Your task to perform on an android device: delete the emails in spam in the gmail app Image 0: 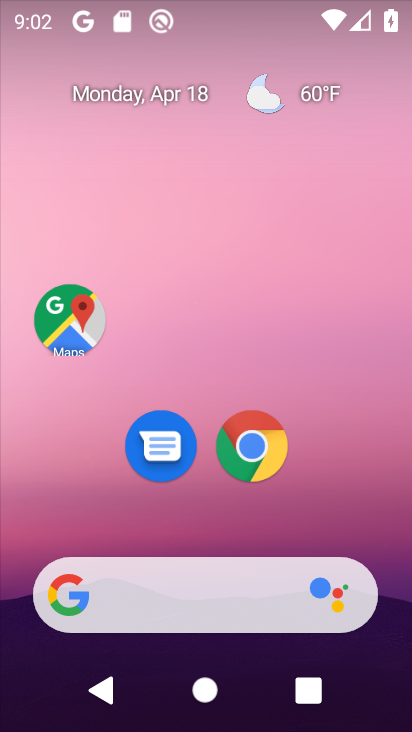
Step 0: drag from (381, 525) to (341, 153)
Your task to perform on an android device: delete the emails in spam in the gmail app Image 1: 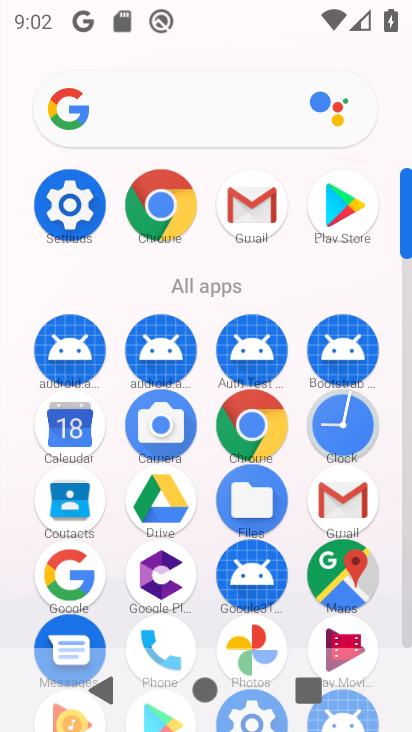
Step 1: click (337, 507)
Your task to perform on an android device: delete the emails in spam in the gmail app Image 2: 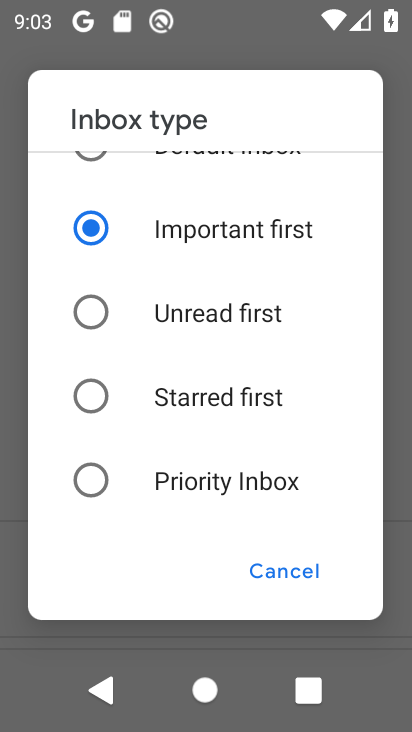
Step 2: click (304, 575)
Your task to perform on an android device: delete the emails in spam in the gmail app Image 3: 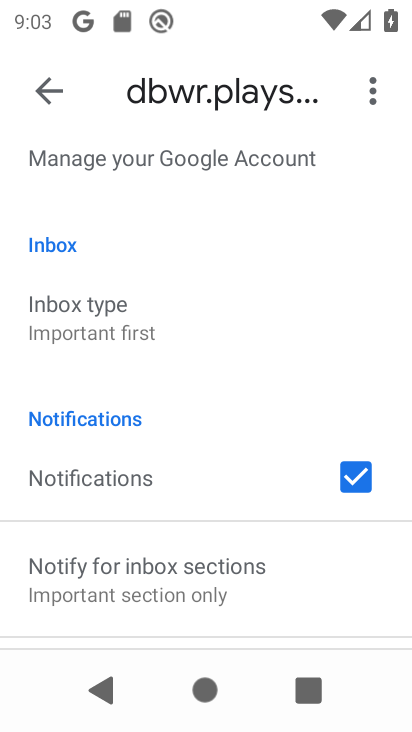
Step 3: click (46, 97)
Your task to perform on an android device: delete the emails in spam in the gmail app Image 4: 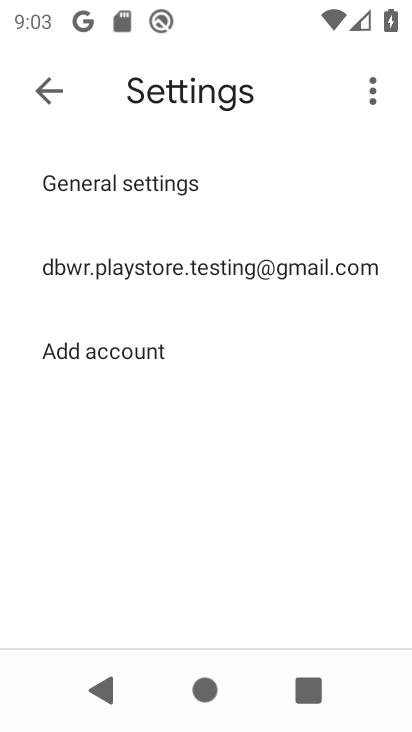
Step 4: click (46, 97)
Your task to perform on an android device: delete the emails in spam in the gmail app Image 5: 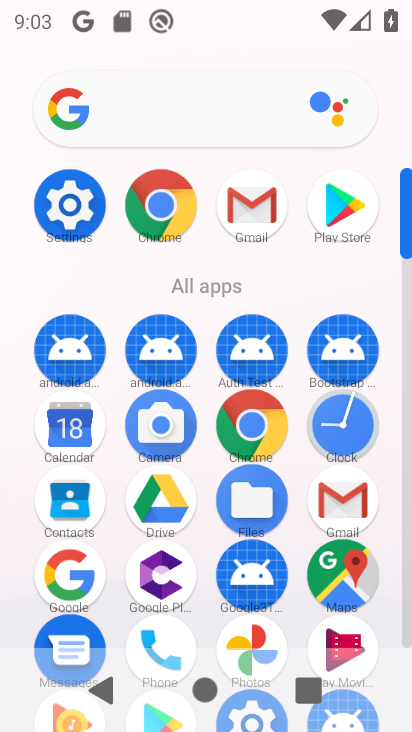
Step 5: click (263, 223)
Your task to perform on an android device: delete the emails in spam in the gmail app Image 6: 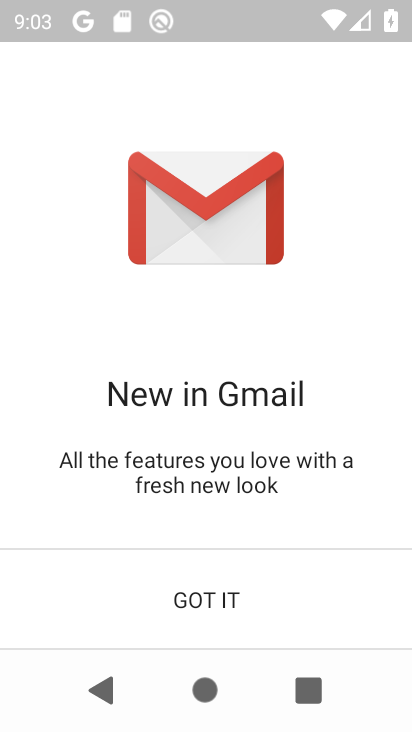
Step 6: click (236, 602)
Your task to perform on an android device: delete the emails in spam in the gmail app Image 7: 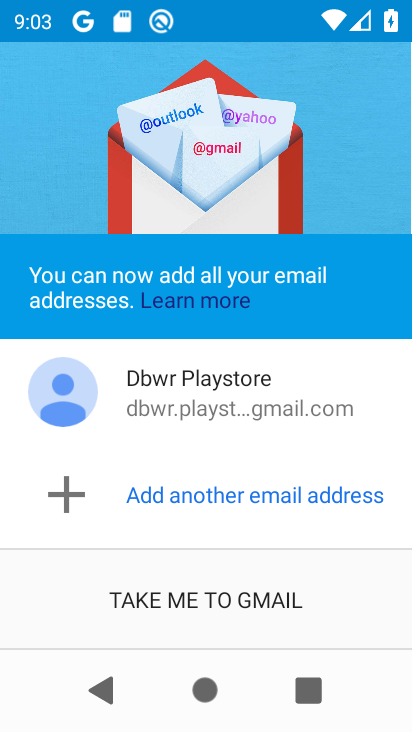
Step 7: click (236, 603)
Your task to perform on an android device: delete the emails in spam in the gmail app Image 8: 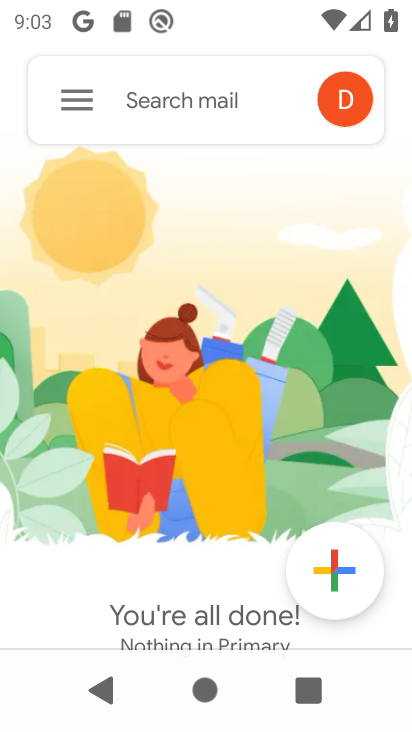
Step 8: click (67, 86)
Your task to perform on an android device: delete the emails in spam in the gmail app Image 9: 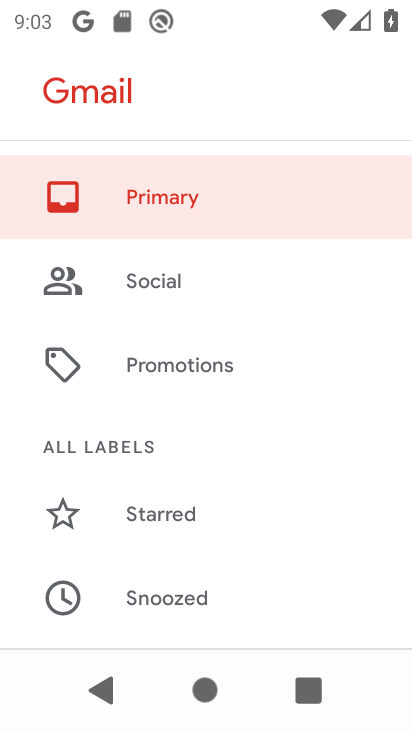
Step 9: drag from (315, 512) to (314, 311)
Your task to perform on an android device: delete the emails in spam in the gmail app Image 10: 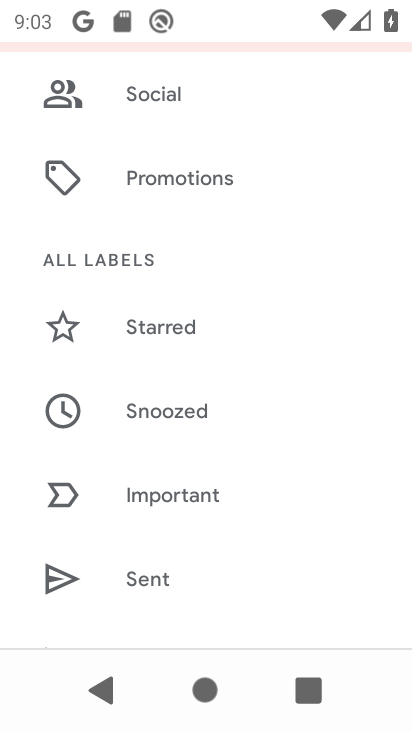
Step 10: drag from (315, 506) to (326, 288)
Your task to perform on an android device: delete the emails in spam in the gmail app Image 11: 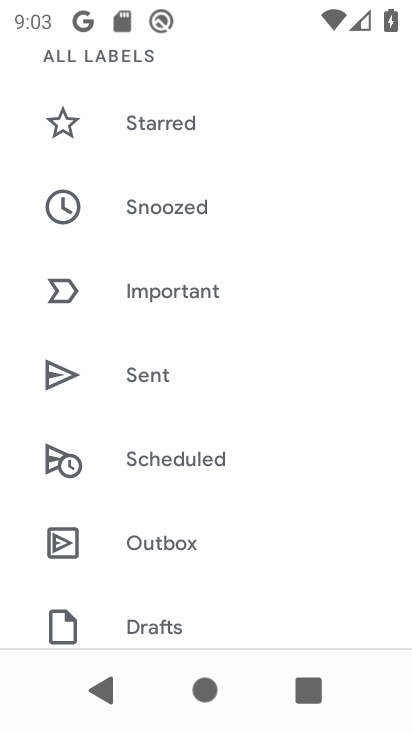
Step 11: drag from (305, 550) to (318, 281)
Your task to perform on an android device: delete the emails in spam in the gmail app Image 12: 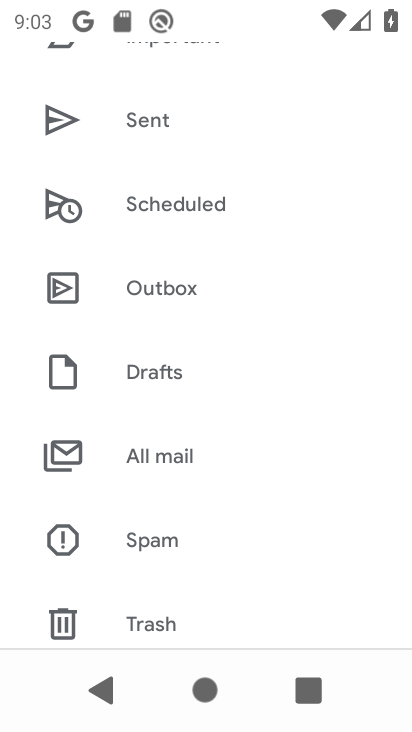
Step 12: click (175, 551)
Your task to perform on an android device: delete the emails in spam in the gmail app Image 13: 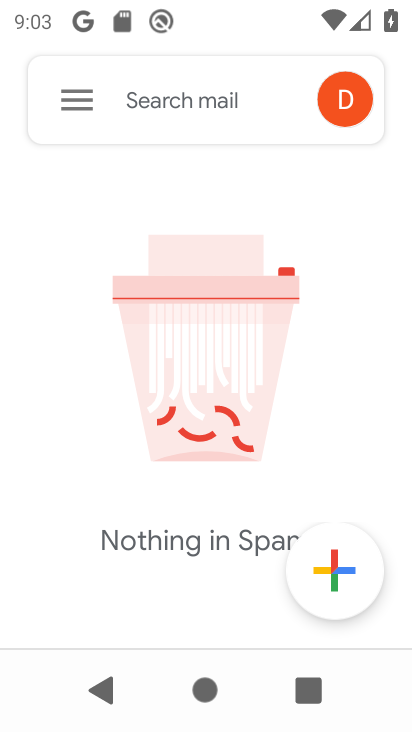
Step 13: task complete